Your task to perform on an android device: Search for seafood restaurants on Google Maps Image 0: 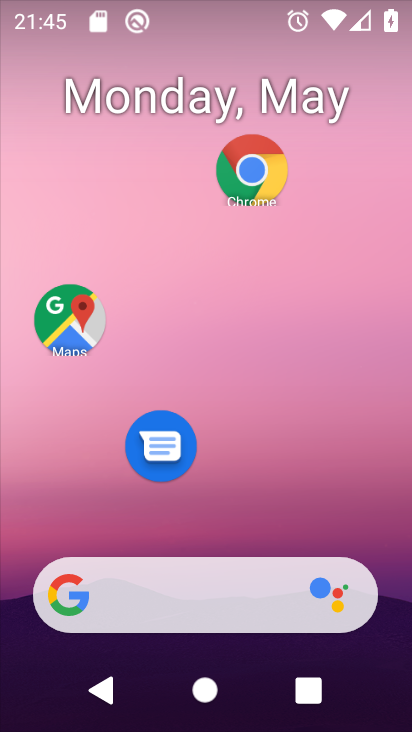
Step 0: click (67, 315)
Your task to perform on an android device: Search for seafood restaurants on Google Maps Image 1: 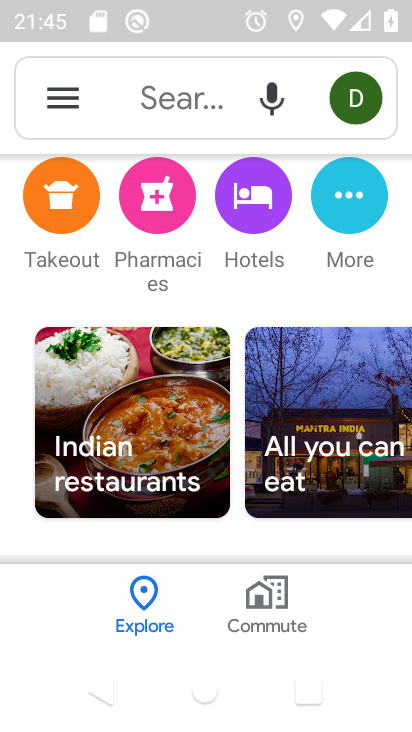
Step 1: click (151, 94)
Your task to perform on an android device: Search for seafood restaurants on Google Maps Image 2: 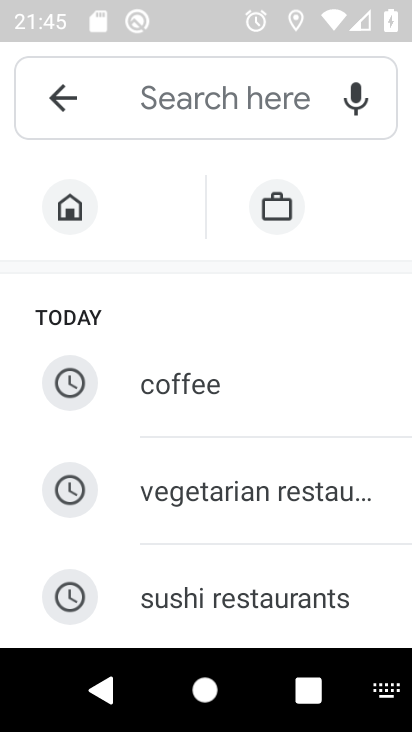
Step 2: drag from (194, 562) to (216, 185)
Your task to perform on an android device: Search for seafood restaurants on Google Maps Image 3: 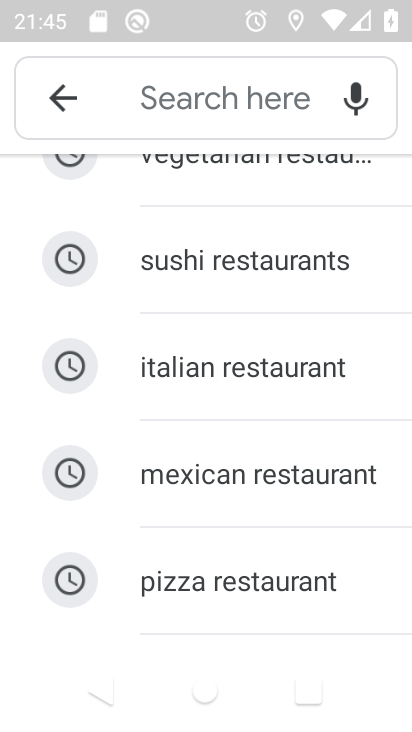
Step 3: drag from (192, 536) to (203, 212)
Your task to perform on an android device: Search for seafood restaurants on Google Maps Image 4: 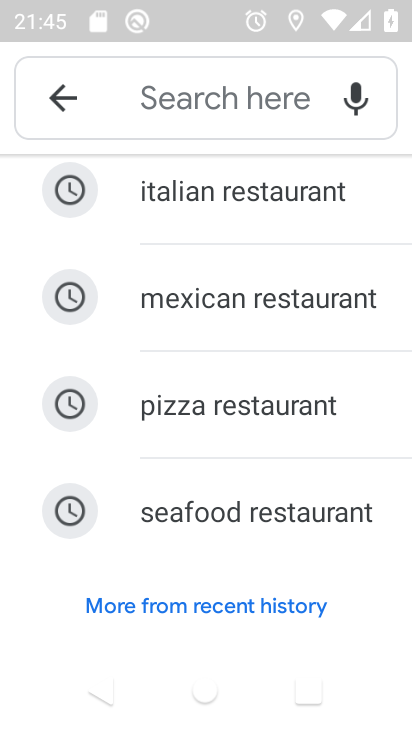
Step 4: click (124, 503)
Your task to perform on an android device: Search for seafood restaurants on Google Maps Image 5: 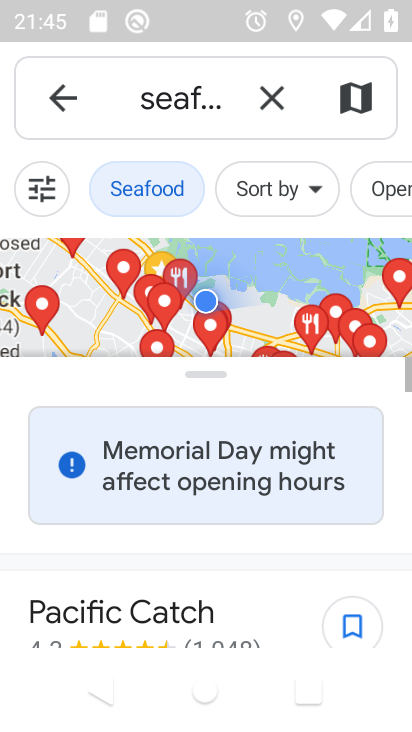
Step 5: task complete